Your task to perform on an android device: Play the last video I watched on Youtube Image 0: 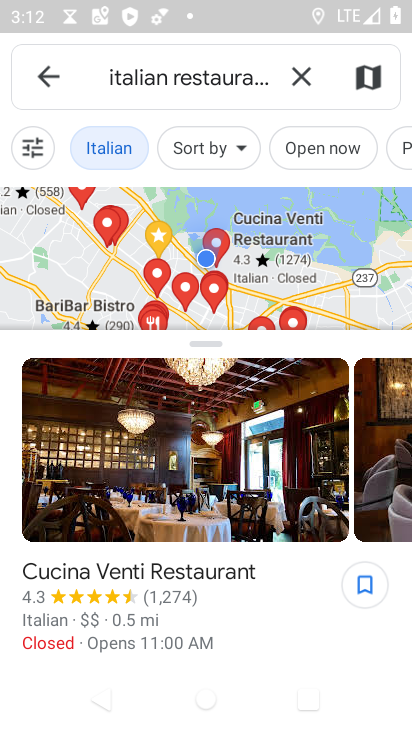
Step 0: press home button
Your task to perform on an android device: Play the last video I watched on Youtube Image 1: 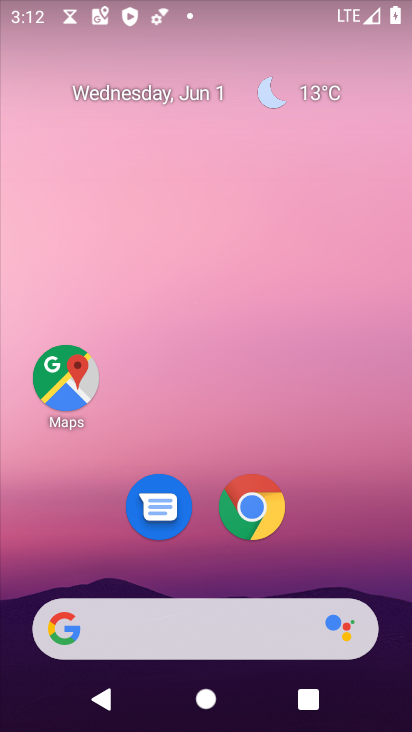
Step 1: drag from (329, 563) to (116, 193)
Your task to perform on an android device: Play the last video I watched on Youtube Image 2: 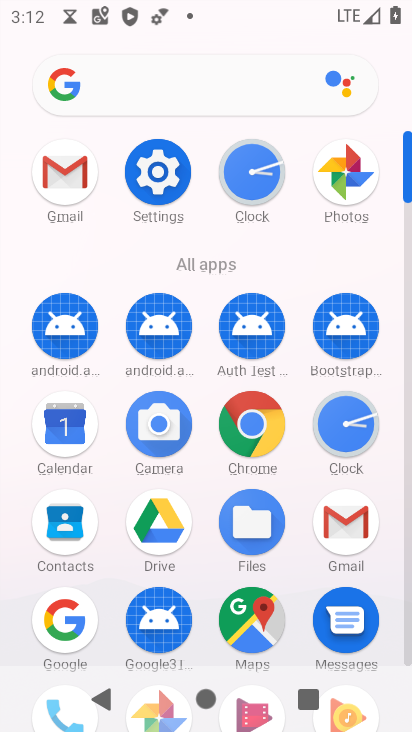
Step 2: click (410, 526)
Your task to perform on an android device: Play the last video I watched on Youtube Image 3: 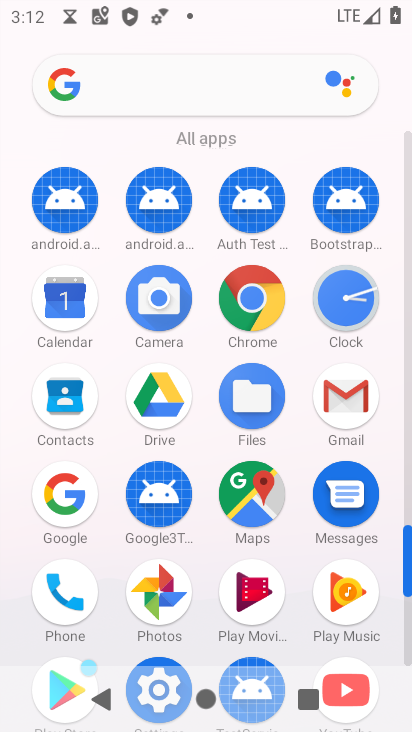
Step 3: click (406, 619)
Your task to perform on an android device: Play the last video I watched on Youtube Image 4: 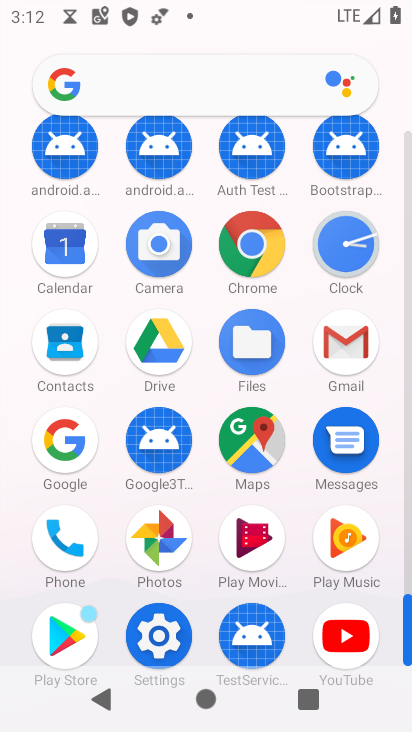
Step 4: click (360, 637)
Your task to perform on an android device: Play the last video I watched on Youtube Image 5: 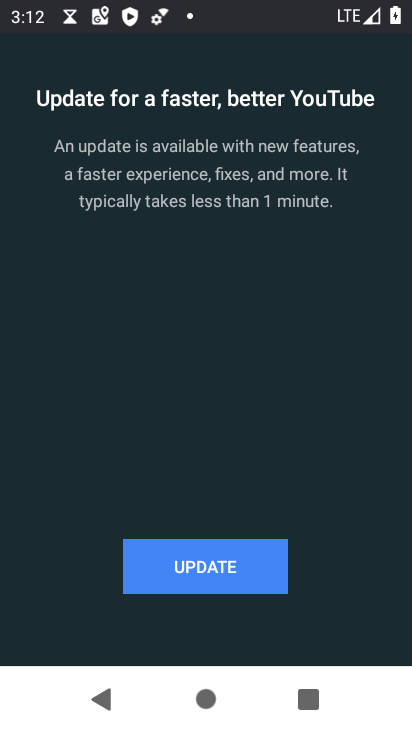
Step 5: click (190, 577)
Your task to perform on an android device: Play the last video I watched on Youtube Image 6: 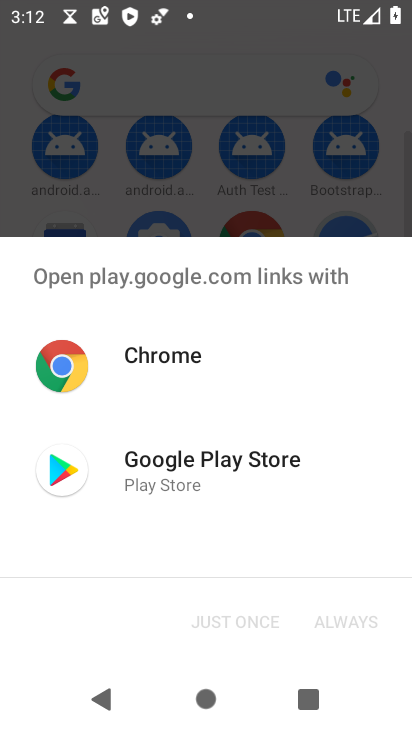
Step 6: click (169, 481)
Your task to perform on an android device: Play the last video I watched on Youtube Image 7: 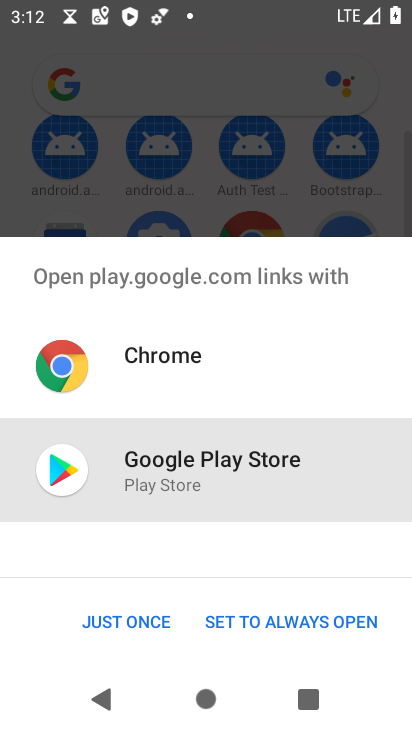
Step 7: click (135, 626)
Your task to perform on an android device: Play the last video I watched on Youtube Image 8: 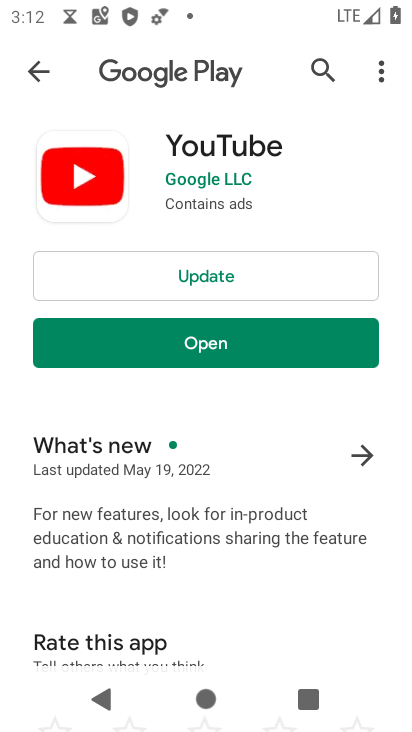
Step 8: click (220, 287)
Your task to perform on an android device: Play the last video I watched on Youtube Image 9: 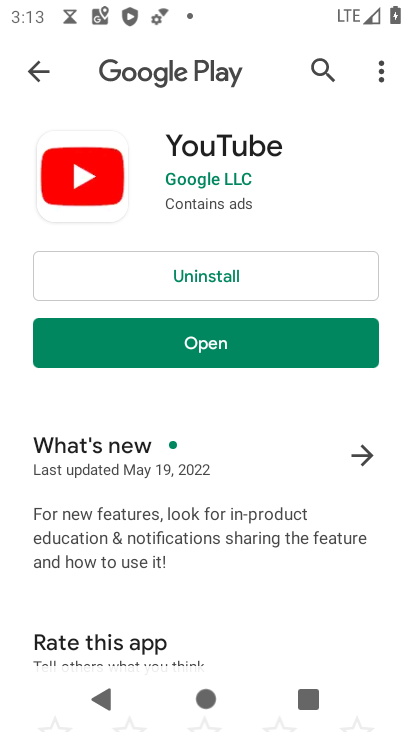
Step 9: click (221, 347)
Your task to perform on an android device: Play the last video I watched on Youtube Image 10: 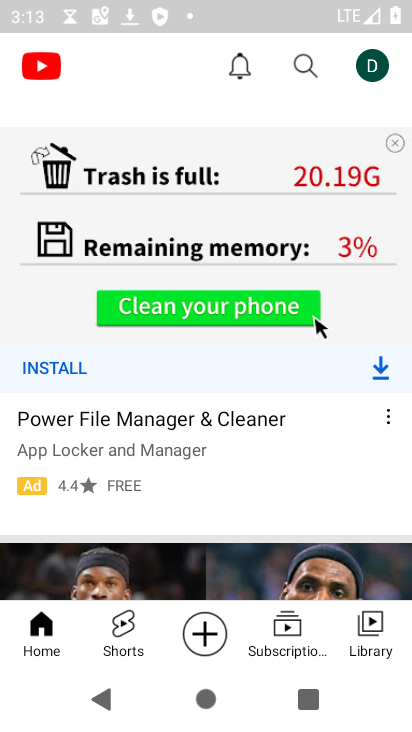
Step 10: click (363, 636)
Your task to perform on an android device: Play the last video I watched on Youtube Image 11: 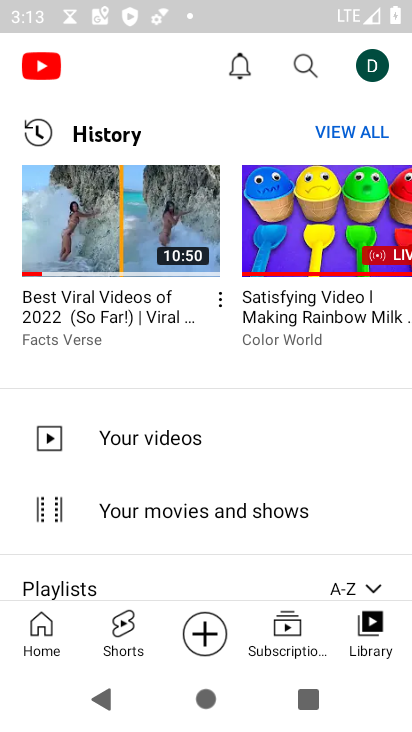
Step 11: click (78, 246)
Your task to perform on an android device: Play the last video I watched on Youtube Image 12: 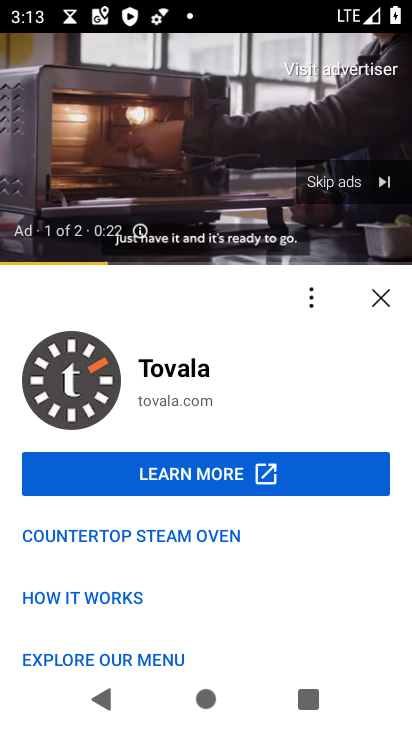
Step 12: click (365, 184)
Your task to perform on an android device: Play the last video I watched on Youtube Image 13: 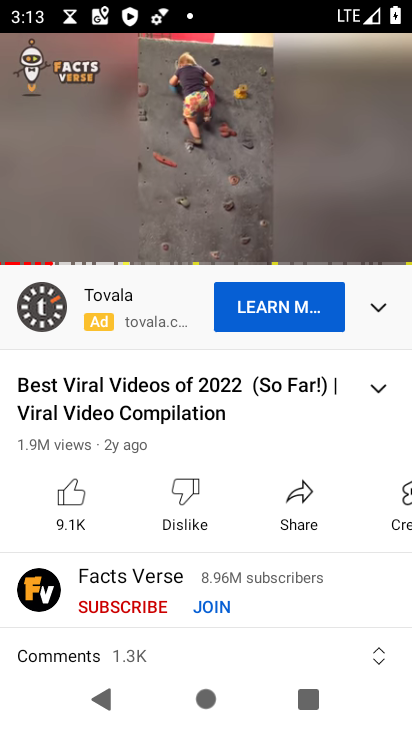
Step 13: task complete